Your task to perform on an android device: See recent photos Image 0: 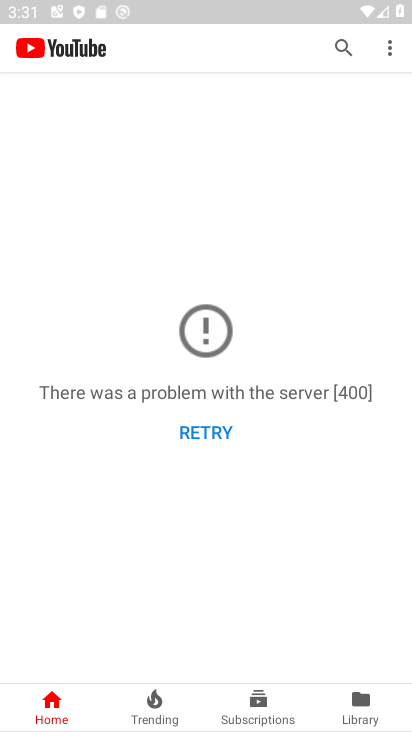
Step 0: press home button
Your task to perform on an android device: See recent photos Image 1: 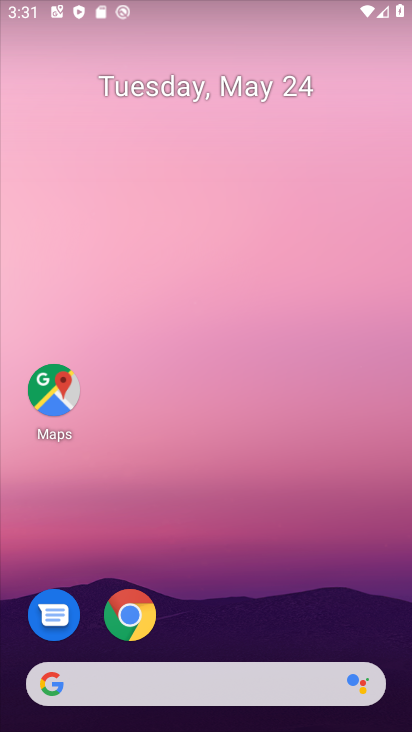
Step 1: drag from (224, 722) to (221, 66)
Your task to perform on an android device: See recent photos Image 2: 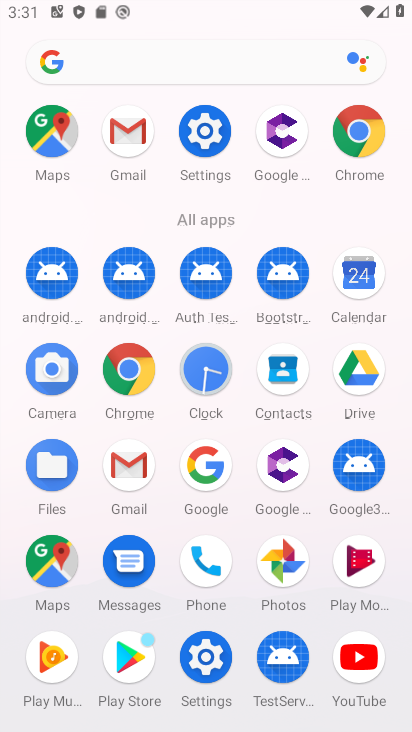
Step 2: click (279, 563)
Your task to perform on an android device: See recent photos Image 3: 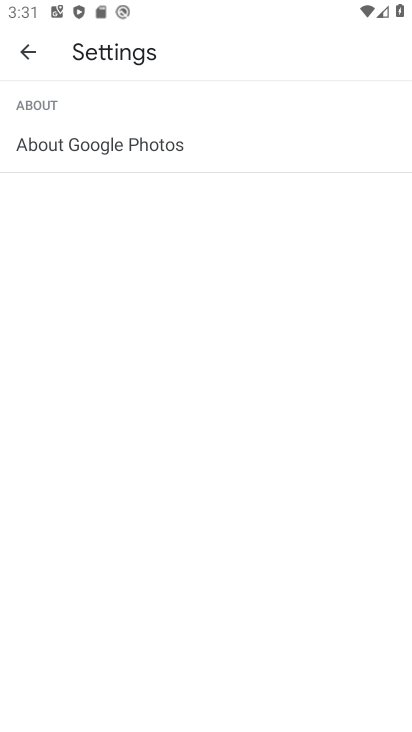
Step 3: click (33, 52)
Your task to perform on an android device: See recent photos Image 4: 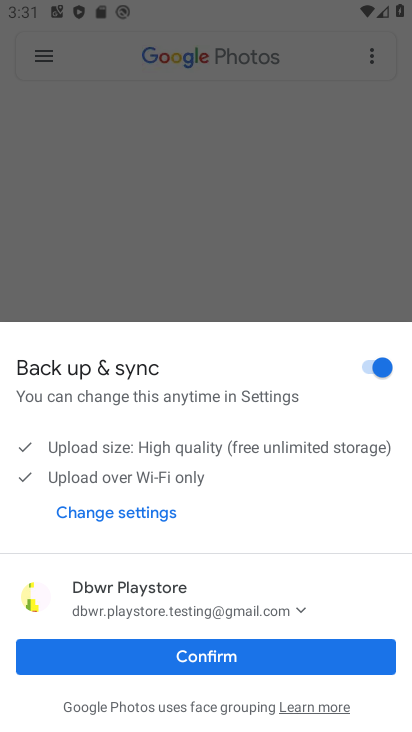
Step 4: click (204, 658)
Your task to perform on an android device: See recent photos Image 5: 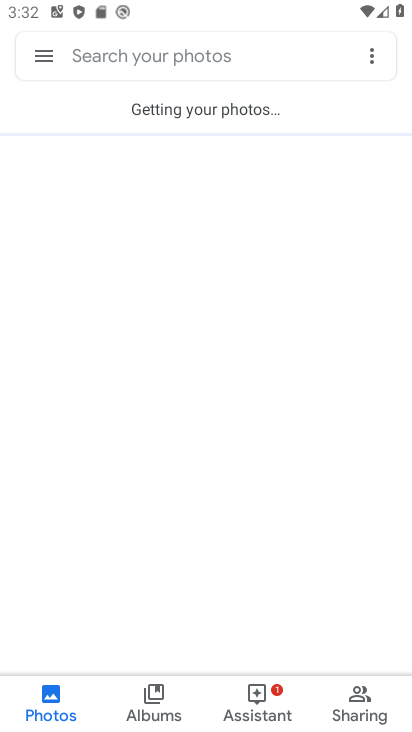
Step 5: drag from (263, 435) to (241, 161)
Your task to perform on an android device: See recent photos Image 6: 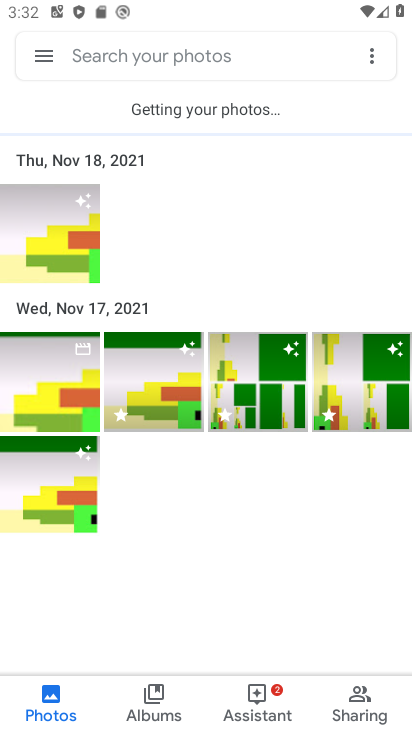
Step 6: click (70, 231)
Your task to perform on an android device: See recent photos Image 7: 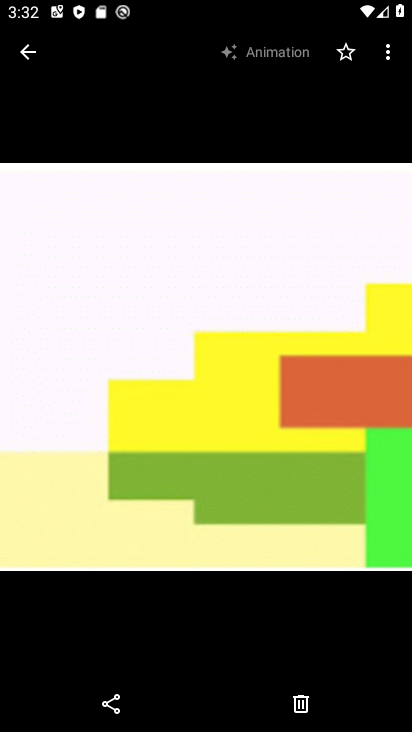
Step 7: task complete